Your task to perform on an android device: Open ESPN.com Image 0: 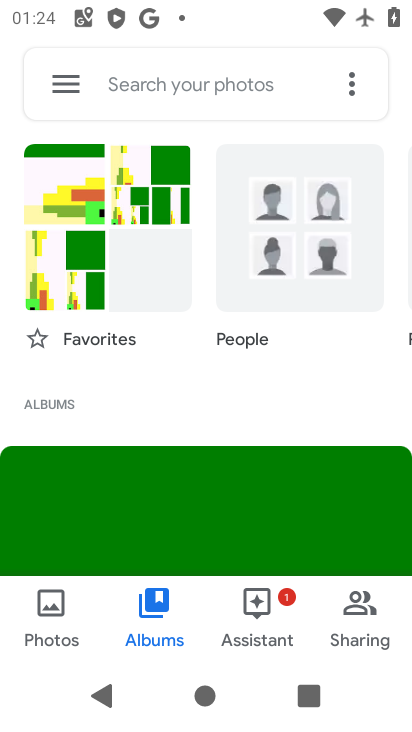
Step 0: press home button
Your task to perform on an android device: Open ESPN.com Image 1: 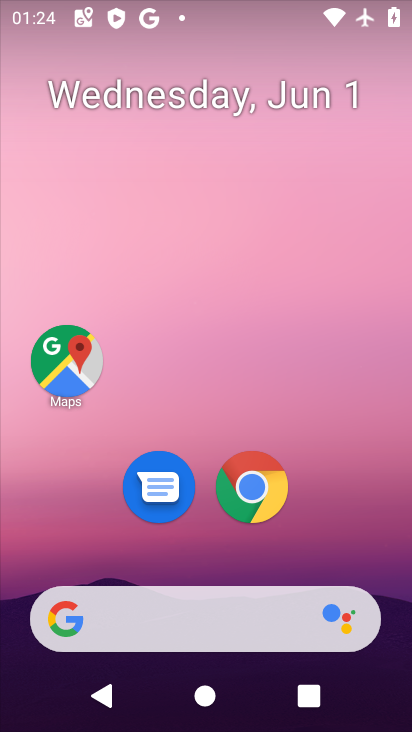
Step 1: drag from (318, 541) to (298, 211)
Your task to perform on an android device: Open ESPN.com Image 2: 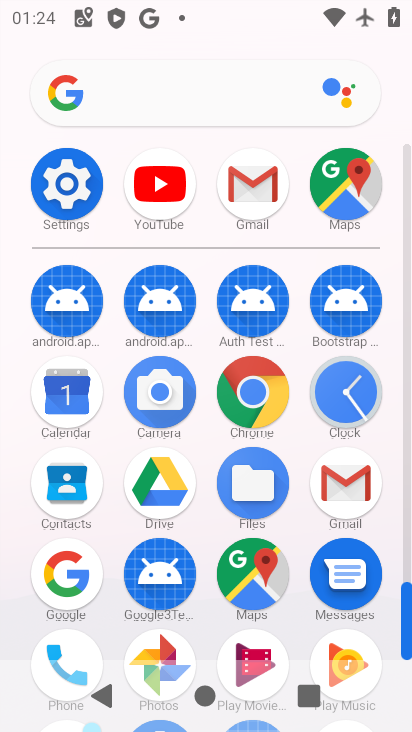
Step 2: click (251, 392)
Your task to perform on an android device: Open ESPN.com Image 3: 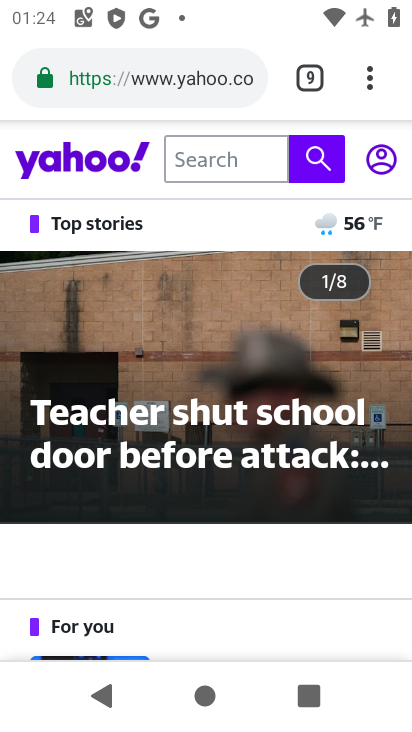
Step 3: click (364, 78)
Your task to perform on an android device: Open ESPN.com Image 4: 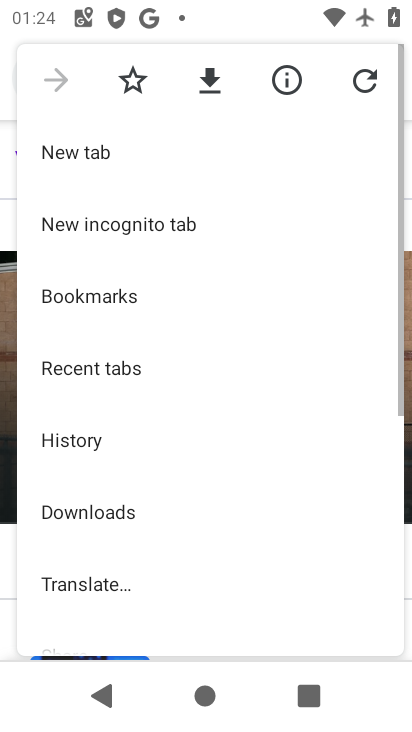
Step 4: click (96, 141)
Your task to perform on an android device: Open ESPN.com Image 5: 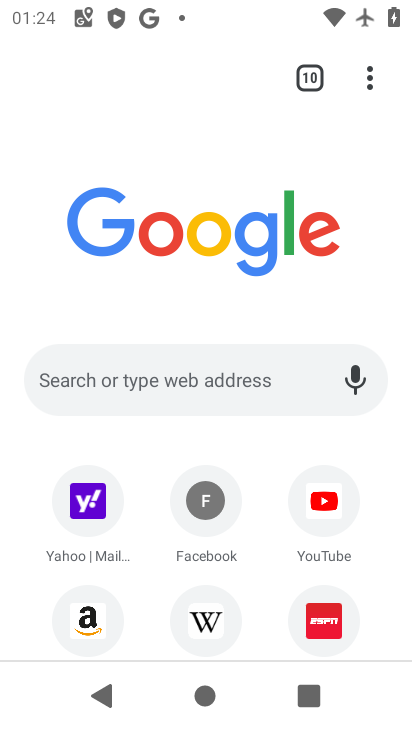
Step 5: click (318, 614)
Your task to perform on an android device: Open ESPN.com Image 6: 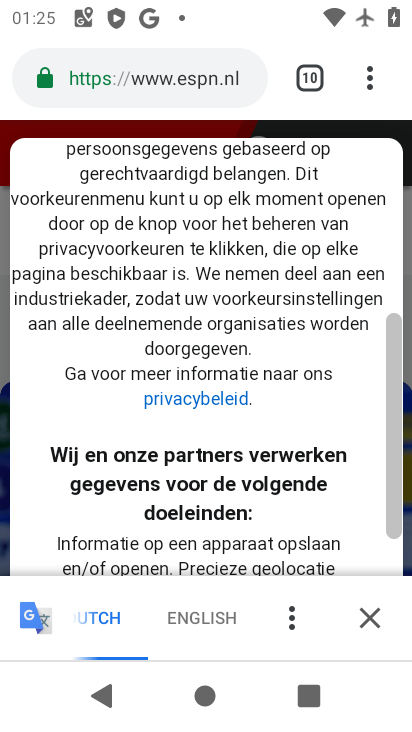
Step 6: task complete